Your task to perform on an android device: Open Chrome and go to the settings page Image 0: 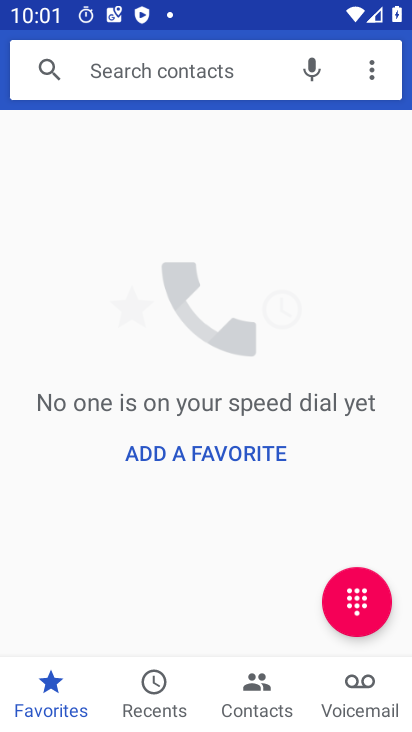
Step 0: press home button
Your task to perform on an android device: Open Chrome and go to the settings page Image 1: 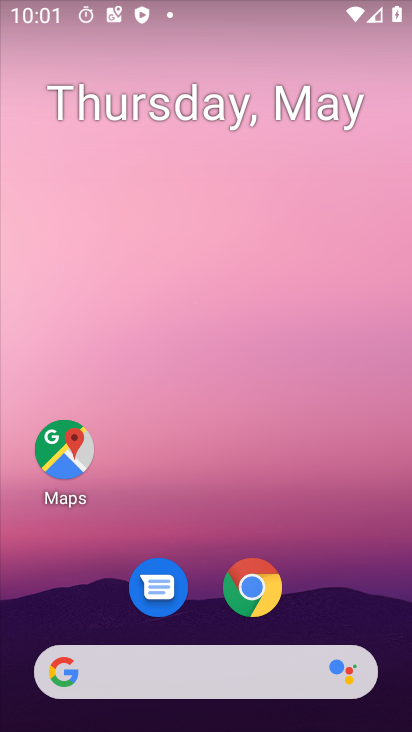
Step 1: click (260, 593)
Your task to perform on an android device: Open Chrome and go to the settings page Image 2: 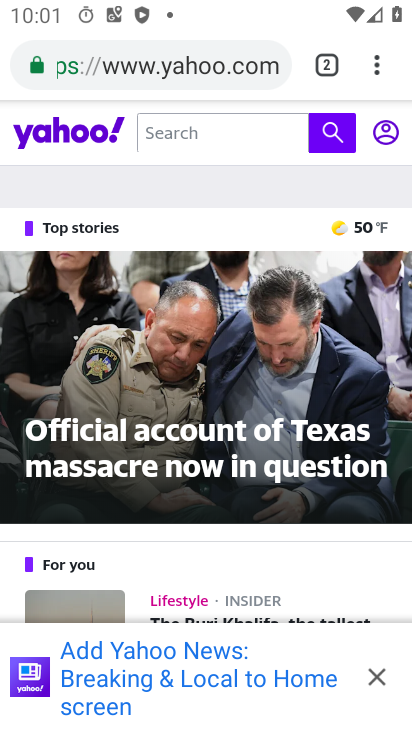
Step 2: click (372, 65)
Your task to perform on an android device: Open Chrome and go to the settings page Image 3: 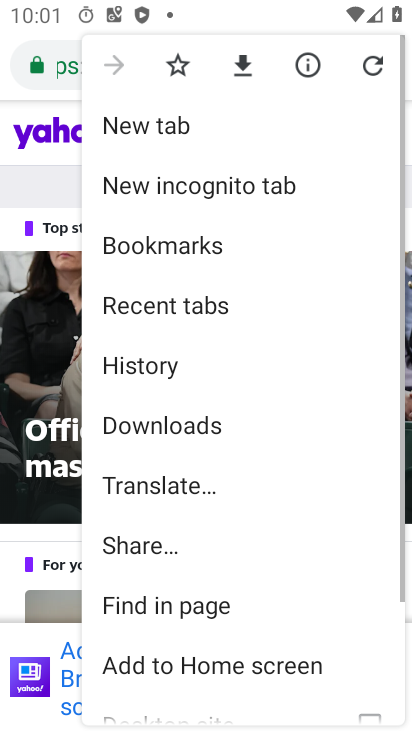
Step 3: drag from (242, 504) to (254, 185)
Your task to perform on an android device: Open Chrome and go to the settings page Image 4: 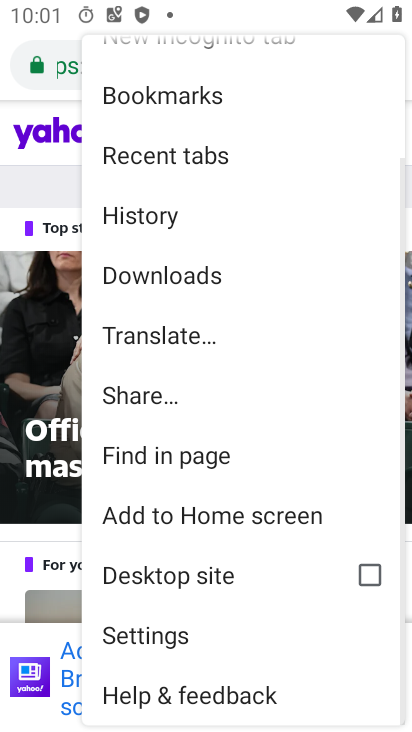
Step 4: click (147, 638)
Your task to perform on an android device: Open Chrome and go to the settings page Image 5: 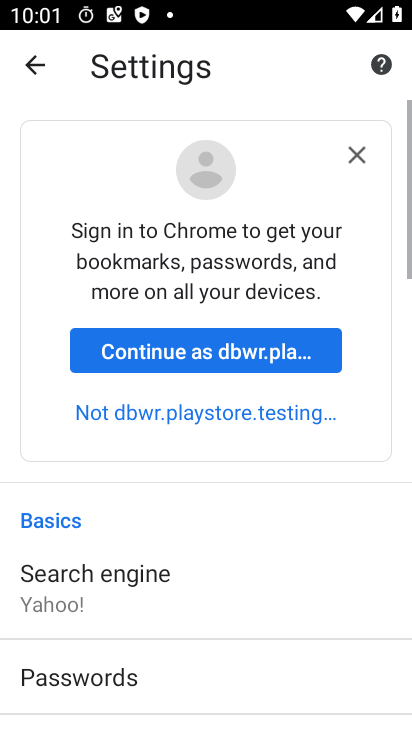
Step 5: task complete